Your task to perform on an android device: add a contact in the contacts app Image 0: 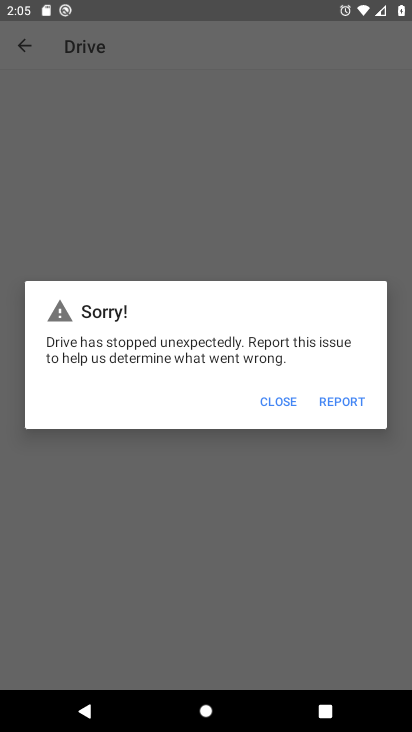
Step 0: press home button
Your task to perform on an android device: add a contact in the contacts app Image 1: 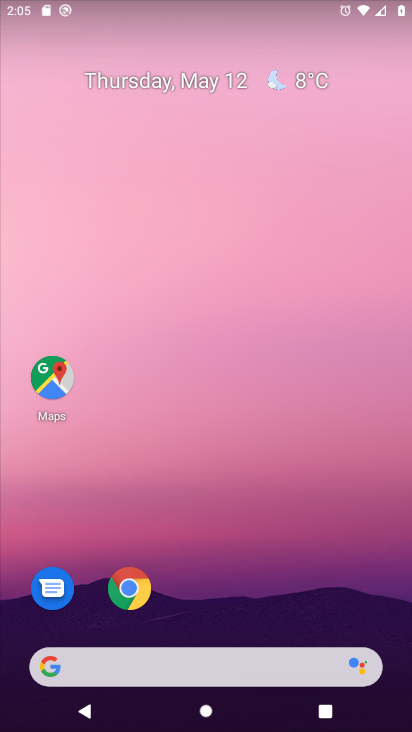
Step 1: drag from (237, 546) to (396, 155)
Your task to perform on an android device: add a contact in the contacts app Image 2: 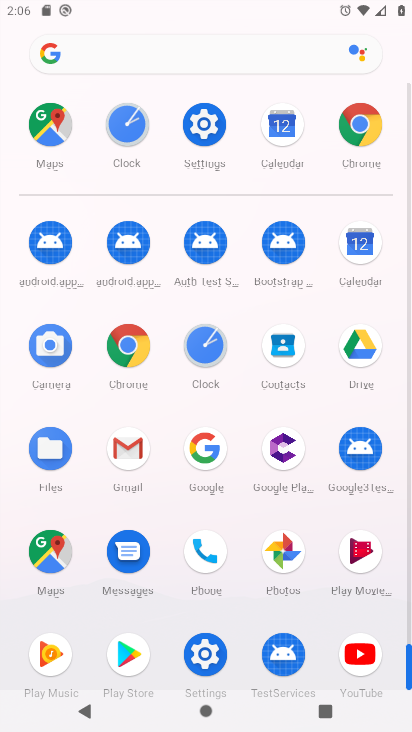
Step 2: click (205, 567)
Your task to perform on an android device: add a contact in the contacts app Image 3: 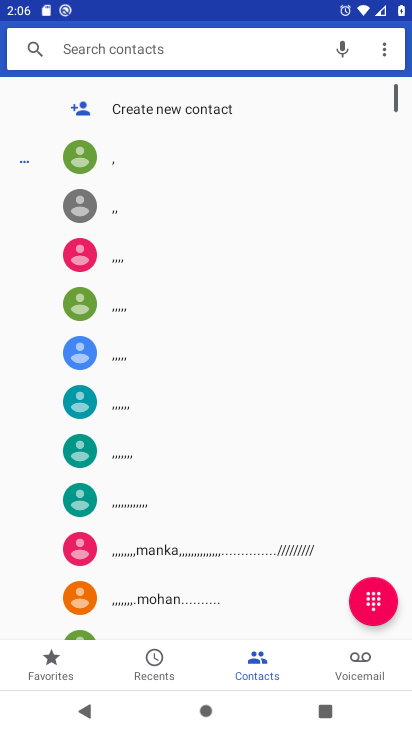
Step 3: click (142, 120)
Your task to perform on an android device: add a contact in the contacts app Image 4: 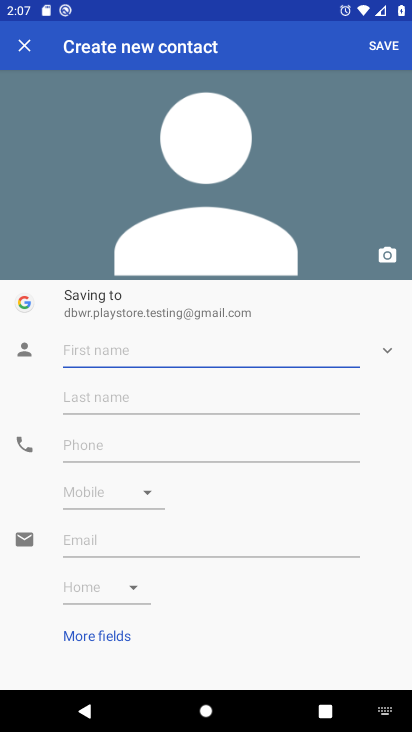
Step 4: type "tggg"
Your task to perform on an android device: add a contact in the contacts app Image 5: 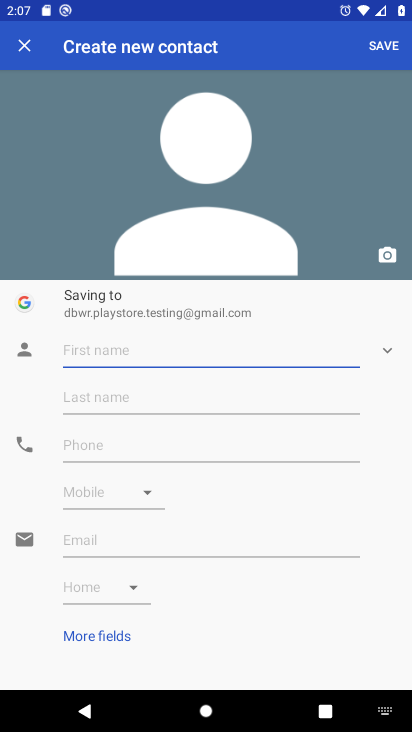
Step 5: click (157, 440)
Your task to perform on an android device: add a contact in the contacts app Image 6: 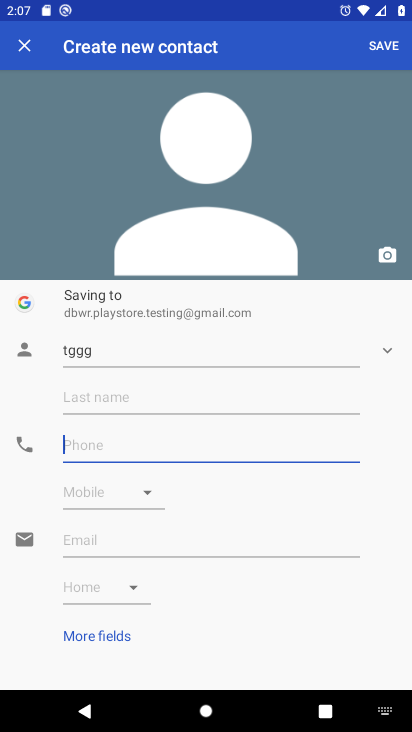
Step 6: type "765434567"
Your task to perform on an android device: add a contact in the contacts app Image 7: 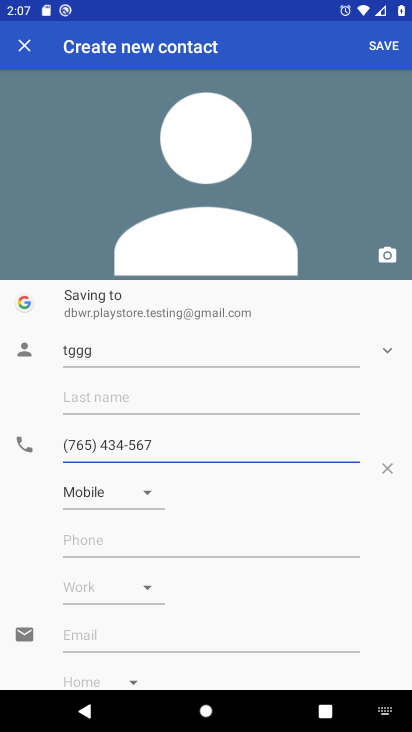
Step 7: click (391, 50)
Your task to perform on an android device: add a contact in the contacts app Image 8: 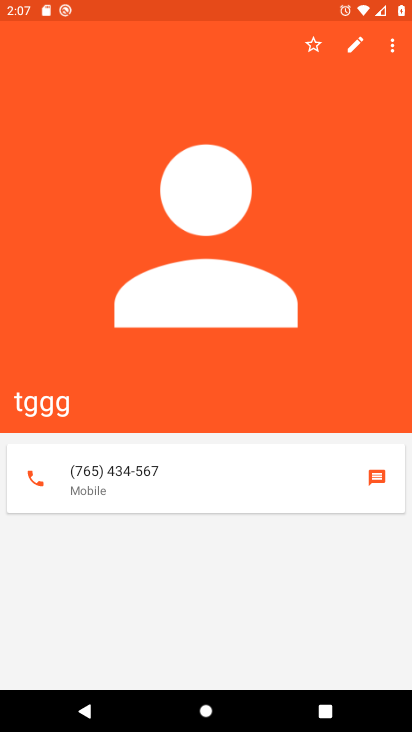
Step 8: task complete